Your task to perform on an android device: set an alarm Image 0: 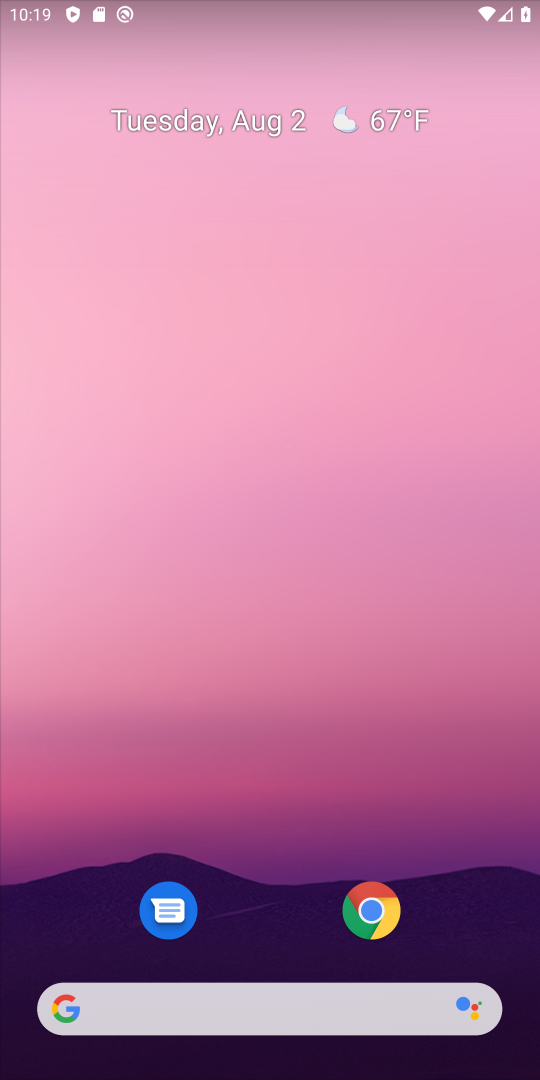
Step 0: drag from (268, 901) to (307, 120)
Your task to perform on an android device: set an alarm Image 1: 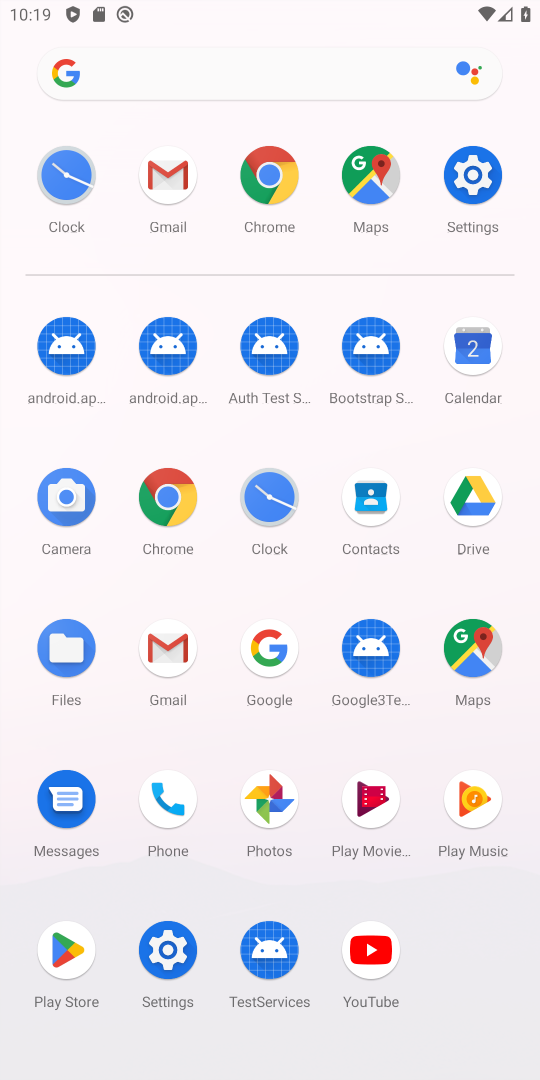
Step 1: click (266, 492)
Your task to perform on an android device: set an alarm Image 2: 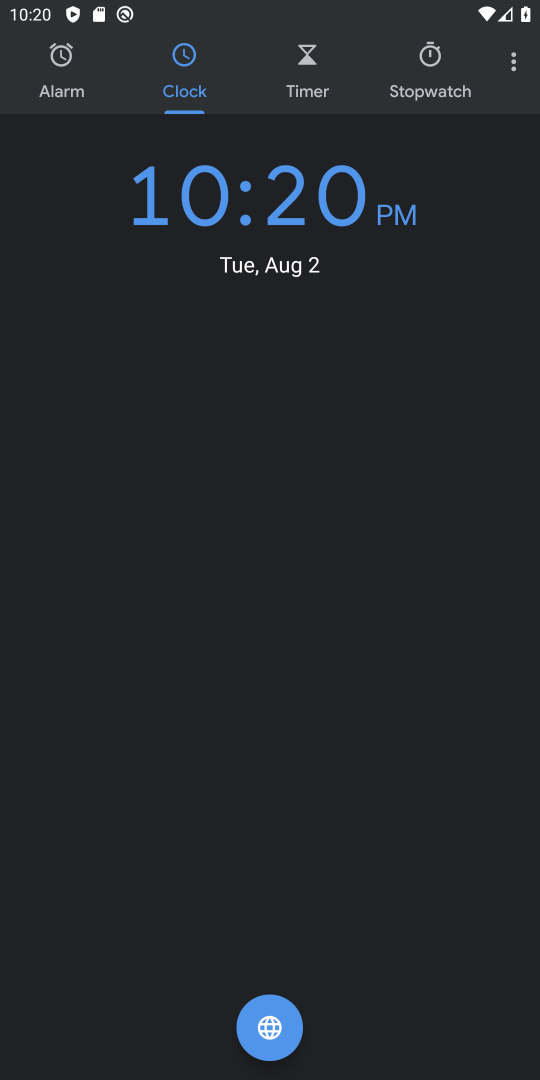
Step 2: click (58, 60)
Your task to perform on an android device: set an alarm Image 3: 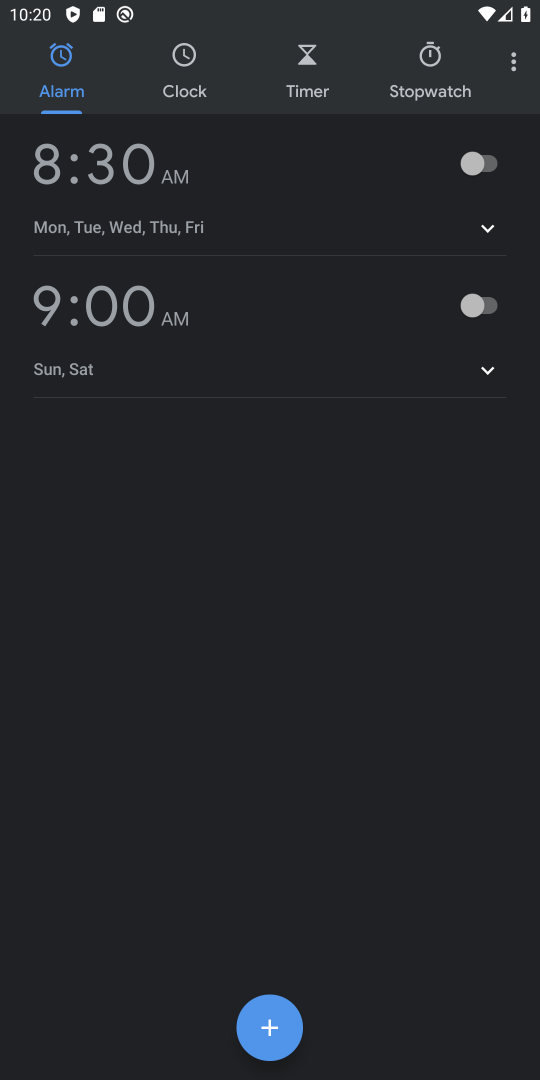
Step 3: click (488, 176)
Your task to perform on an android device: set an alarm Image 4: 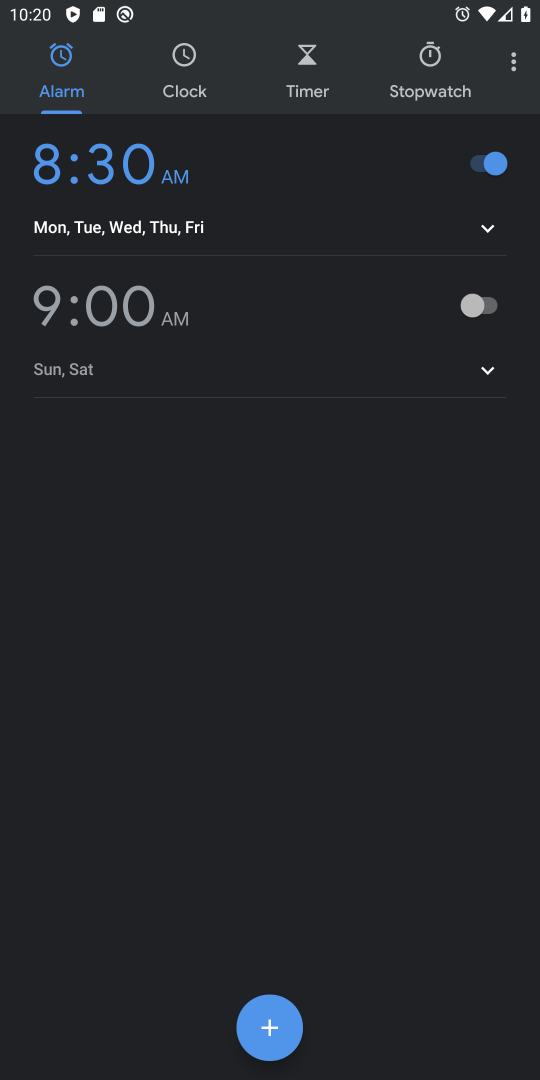
Step 4: task complete